Your task to perform on an android device: Go to network settings Image 0: 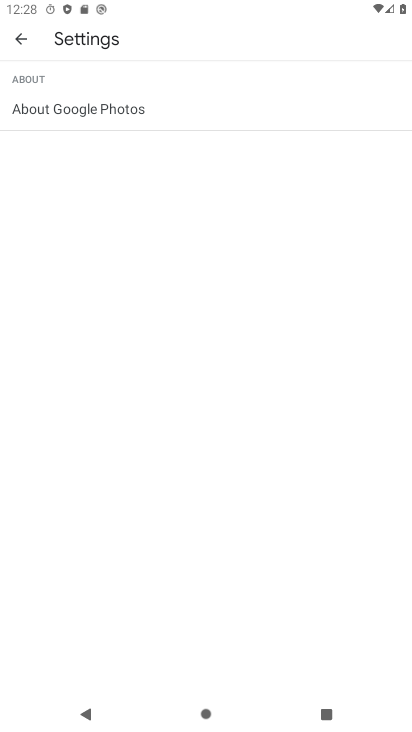
Step 0: press home button
Your task to perform on an android device: Go to network settings Image 1: 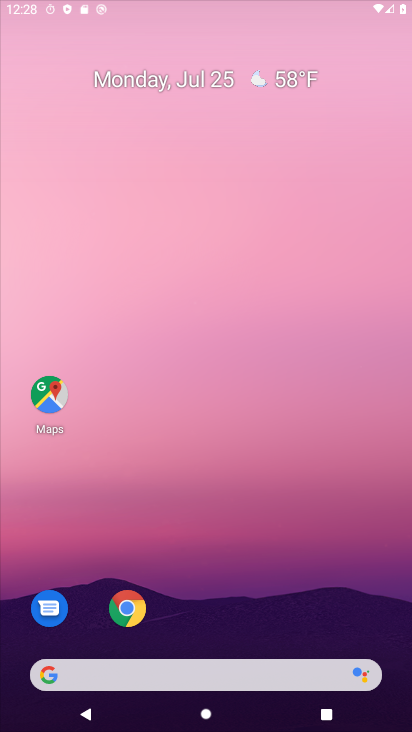
Step 1: drag from (297, 594) to (260, 58)
Your task to perform on an android device: Go to network settings Image 2: 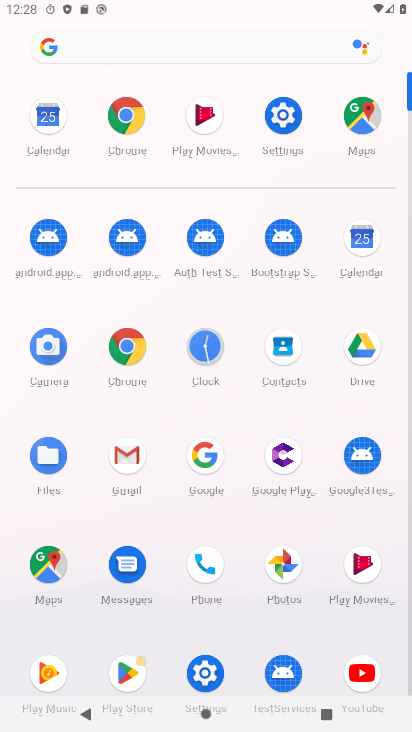
Step 2: click (289, 107)
Your task to perform on an android device: Go to network settings Image 3: 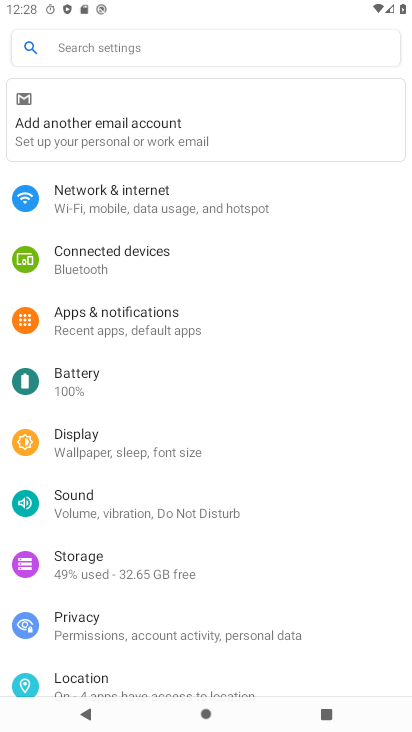
Step 3: click (114, 207)
Your task to perform on an android device: Go to network settings Image 4: 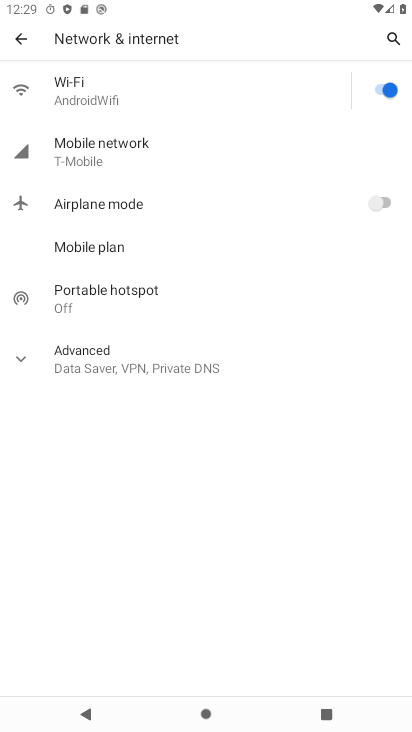
Step 4: task complete